Your task to perform on an android device: Open Reddit.com Image 0: 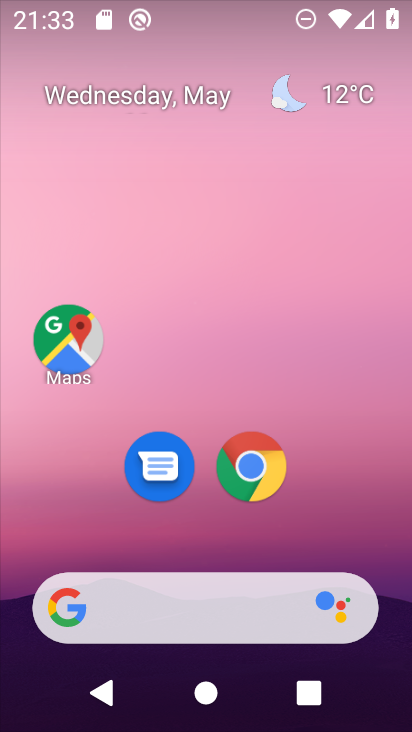
Step 0: press home button
Your task to perform on an android device: Open Reddit.com Image 1: 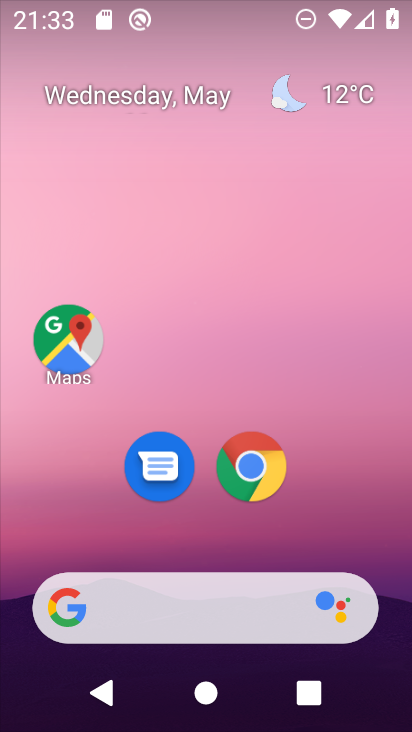
Step 1: click (255, 468)
Your task to perform on an android device: Open Reddit.com Image 2: 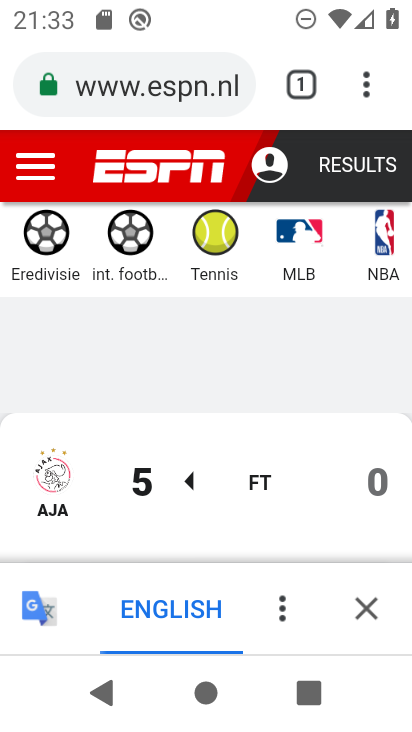
Step 2: click (291, 78)
Your task to perform on an android device: Open Reddit.com Image 3: 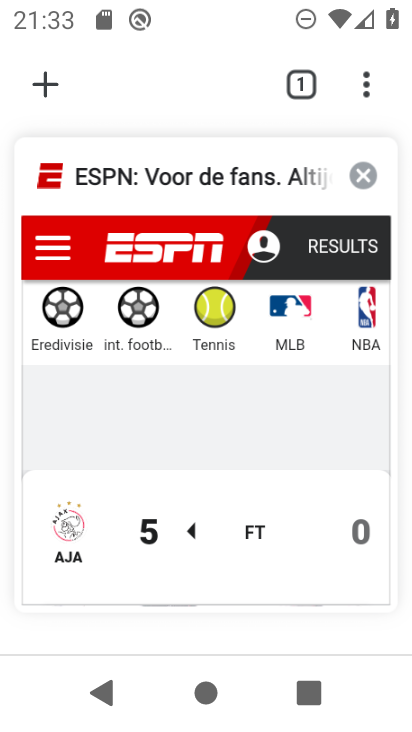
Step 3: click (362, 176)
Your task to perform on an android device: Open Reddit.com Image 4: 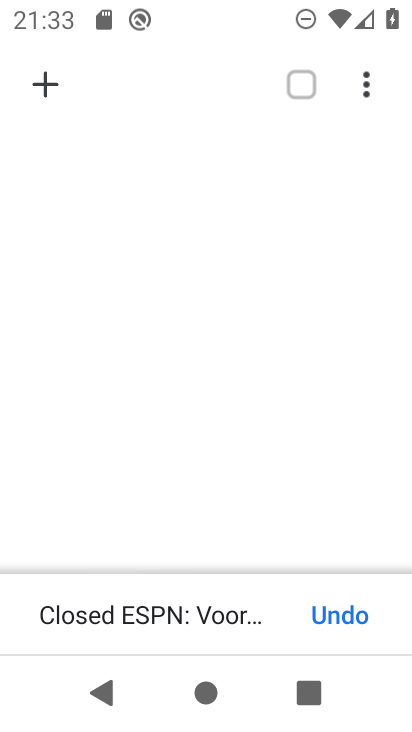
Step 4: click (59, 84)
Your task to perform on an android device: Open Reddit.com Image 5: 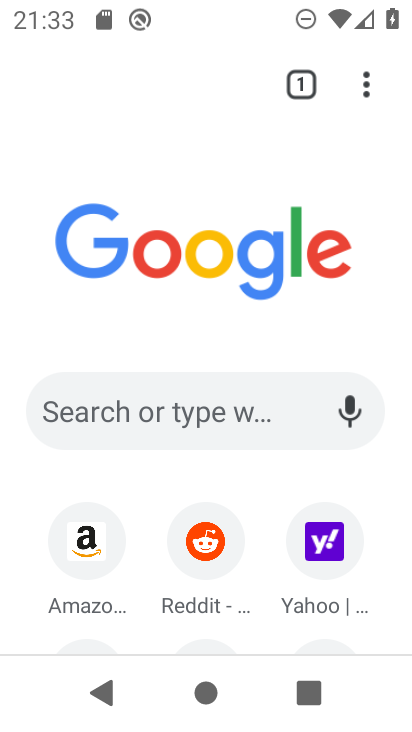
Step 5: click (196, 535)
Your task to perform on an android device: Open Reddit.com Image 6: 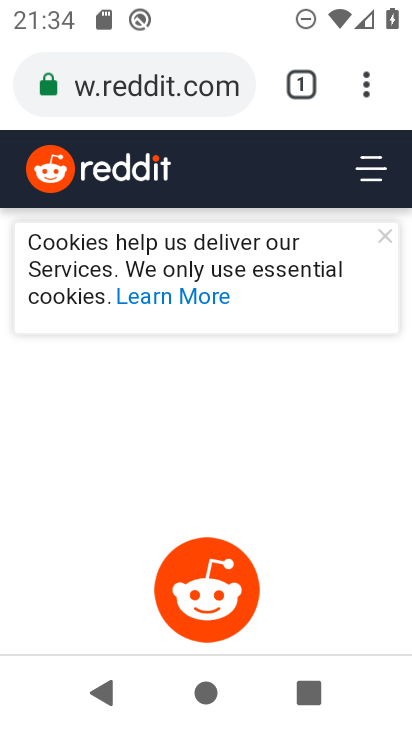
Step 6: task complete